Your task to perform on an android device: When is my next appointment? Image 0: 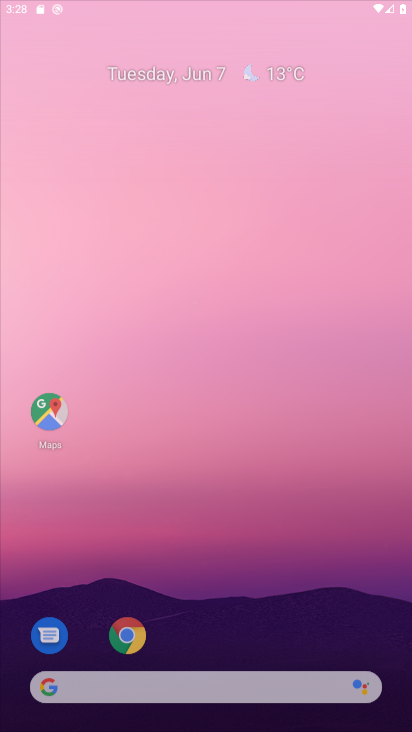
Step 0: drag from (354, 279) to (291, 107)
Your task to perform on an android device: When is my next appointment? Image 1: 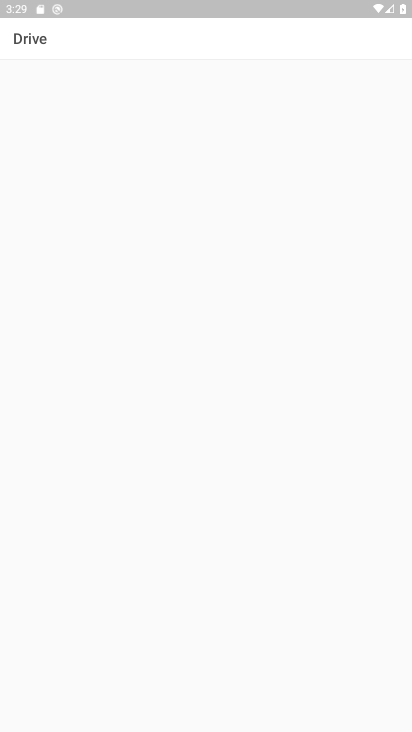
Step 1: press home button
Your task to perform on an android device: When is my next appointment? Image 2: 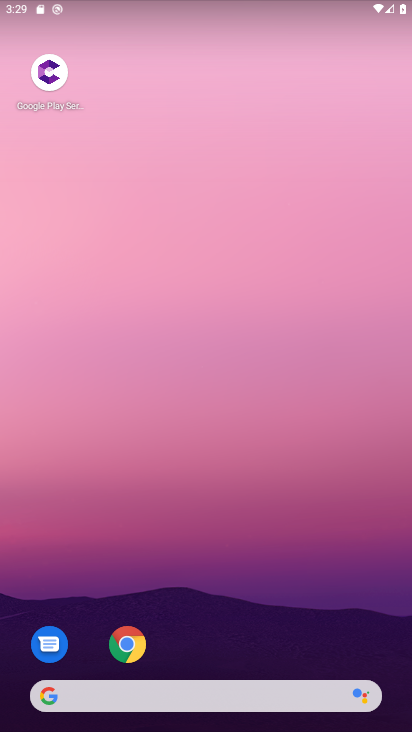
Step 2: drag from (298, 641) to (327, 162)
Your task to perform on an android device: When is my next appointment? Image 3: 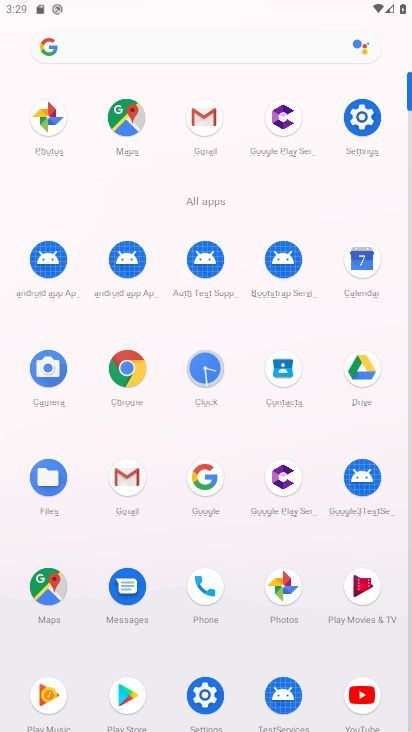
Step 3: click (350, 284)
Your task to perform on an android device: When is my next appointment? Image 4: 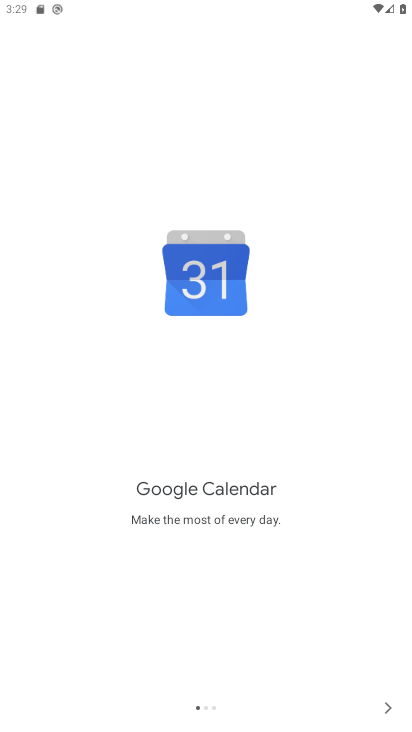
Step 4: click (386, 712)
Your task to perform on an android device: When is my next appointment? Image 5: 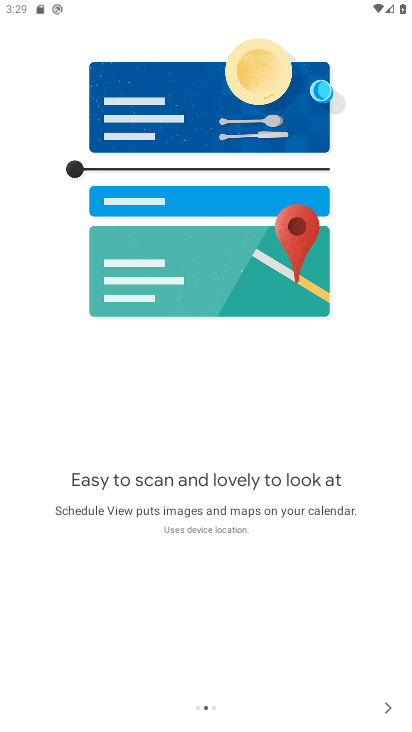
Step 5: click (386, 712)
Your task to perform on an android device: When is my next appointment? Image 6: 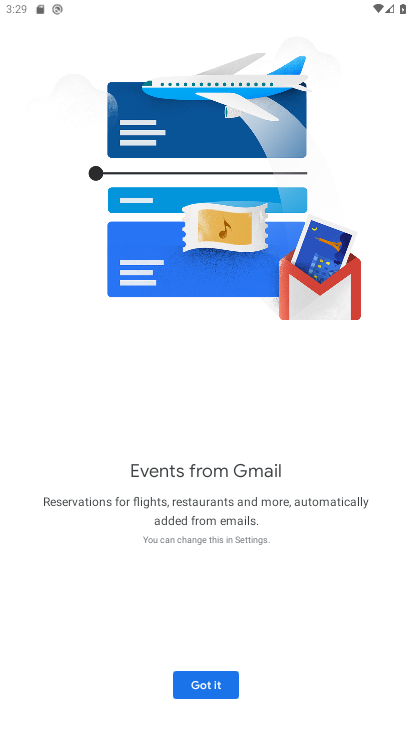
Step 6: click (194, 697)
Your task to perform on an android device: When is my next appointment? Image 7: 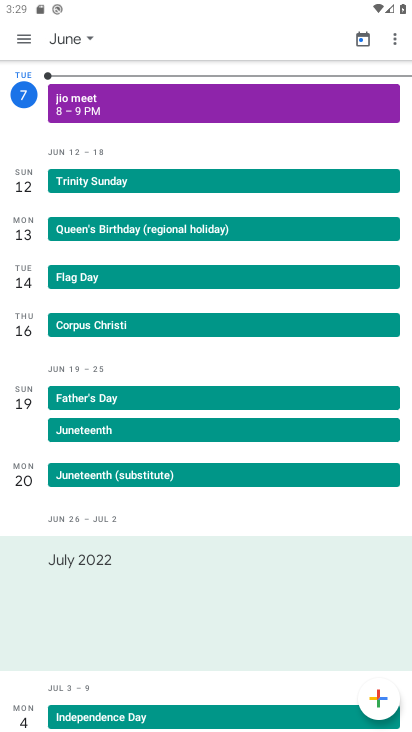
Step 7: drag from (191, 131) to (173, 347)
Your task to perform on an android device: When is my next appointment? Image 8: 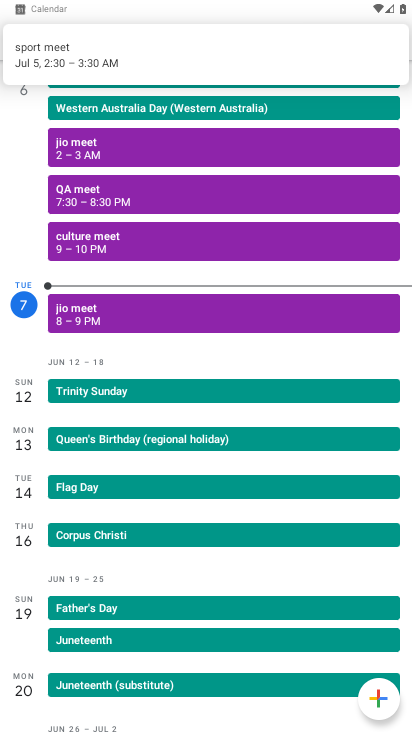
Step 8: click (179, 314)
Your task to perform on an android device: When is my next appointment? Image 9: 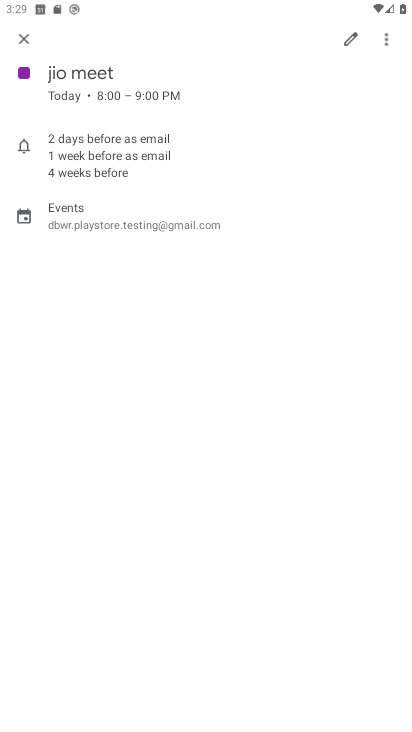
Step 9: task complete